Your task to perform on an android device: open app "LiveIn - Share Your Moment" (install if not already installed) Image 0: 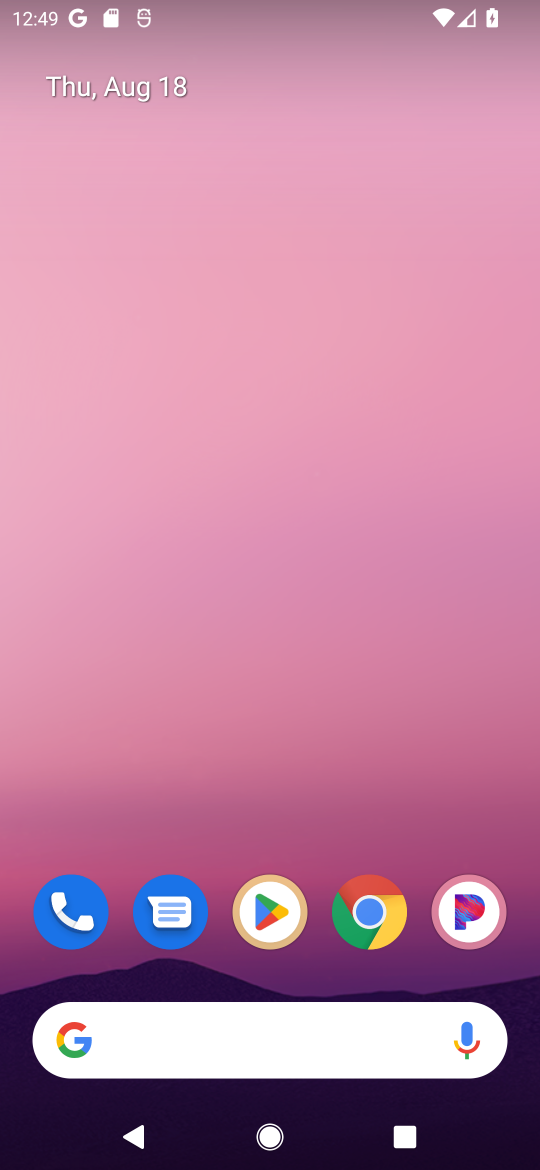
Step 0: click (249, 925)
Your task to perform on an android device: open app "LiveIn - Share Your Moment" (install if not already installed) Image 1: 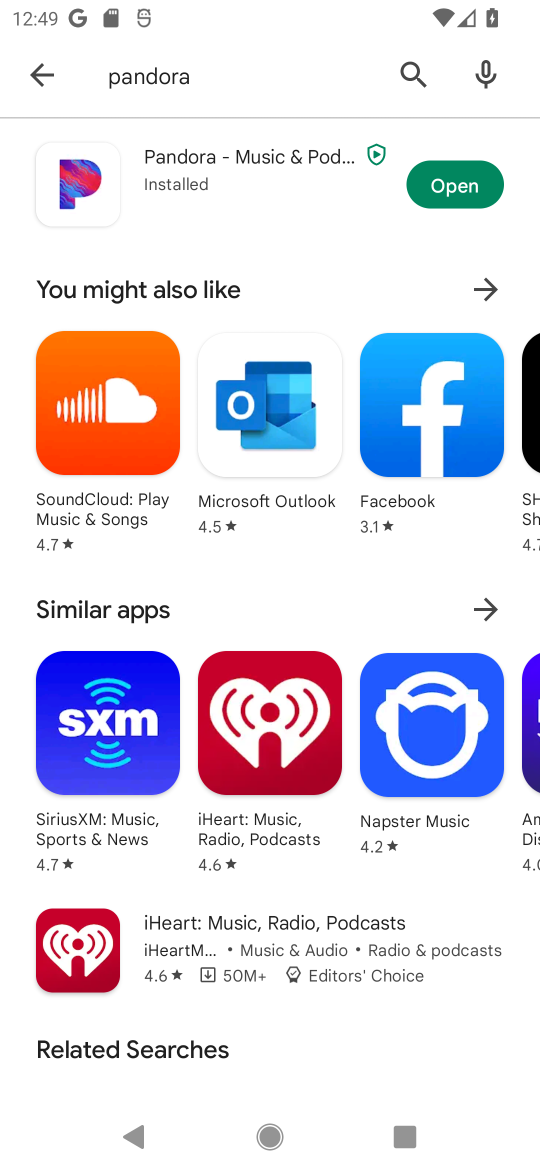
Step 1: click (408, 70)
Your task to perform on an android device: open app "LiveIn - Share Your Moment" (install if not already installed) Image 2: 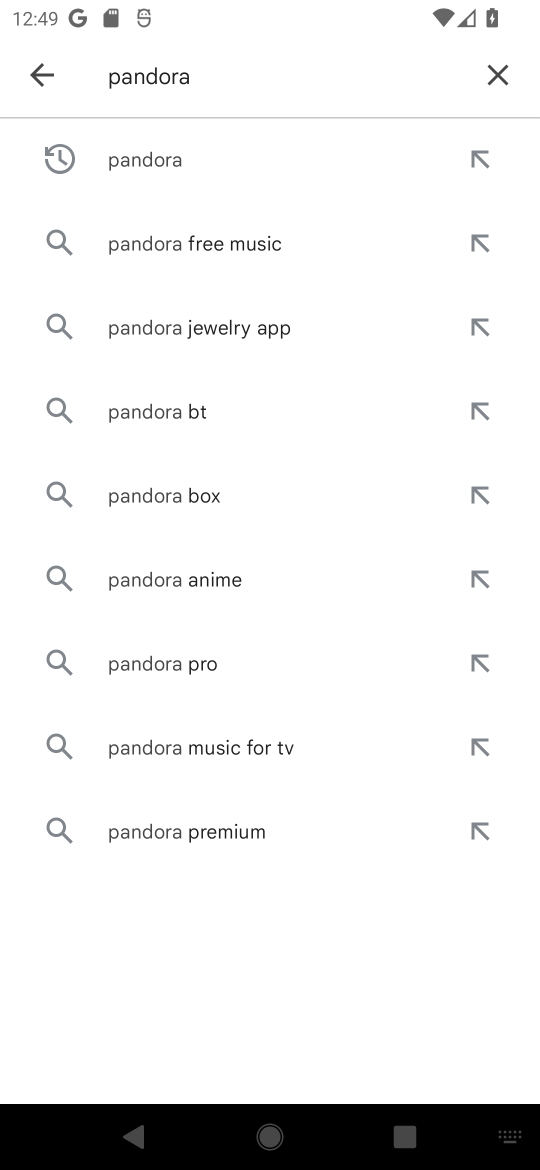
Step 2: click (498, 74)
Your task to perform on an android device: open app "LiveIn - Share Your Moment" (install if not already installed) Image 3: 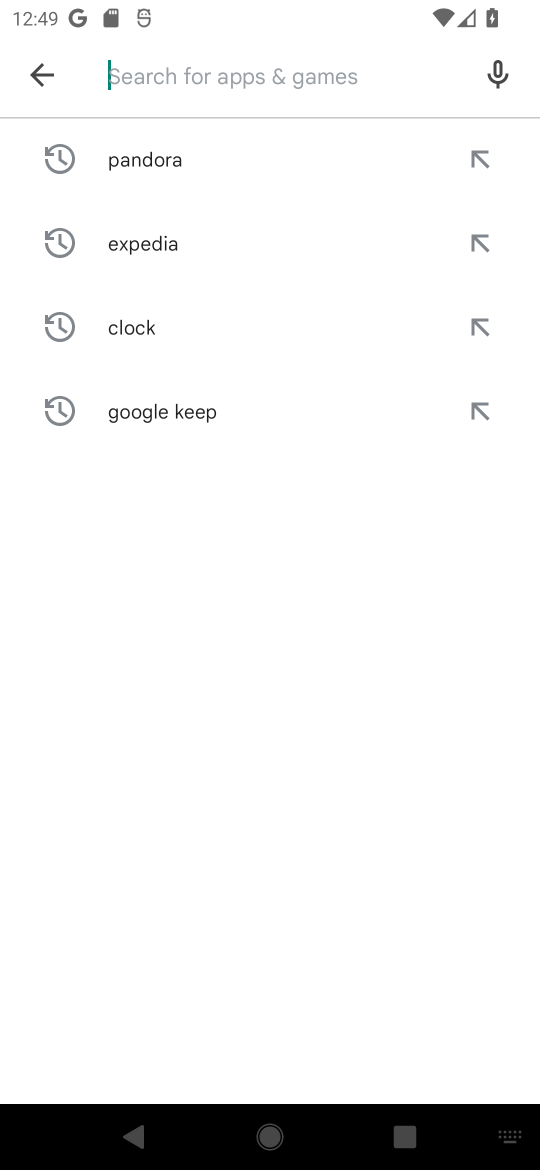
Step 3: click (151, 74)
Your task to perform on an android device: open app "LiveIn - Share Your Moment" (install if not already installed) Image 4: 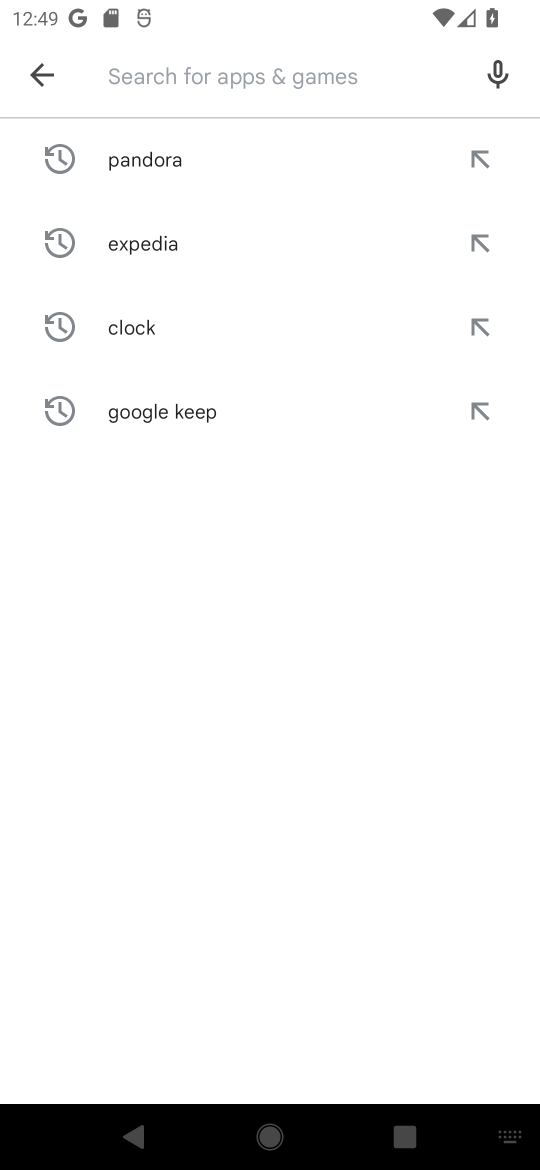
Step 4: type "LiveIn"
Your task to perform on an android device: open app "LiveIn - Share Your Moment" (install if not already installed) Image 5: 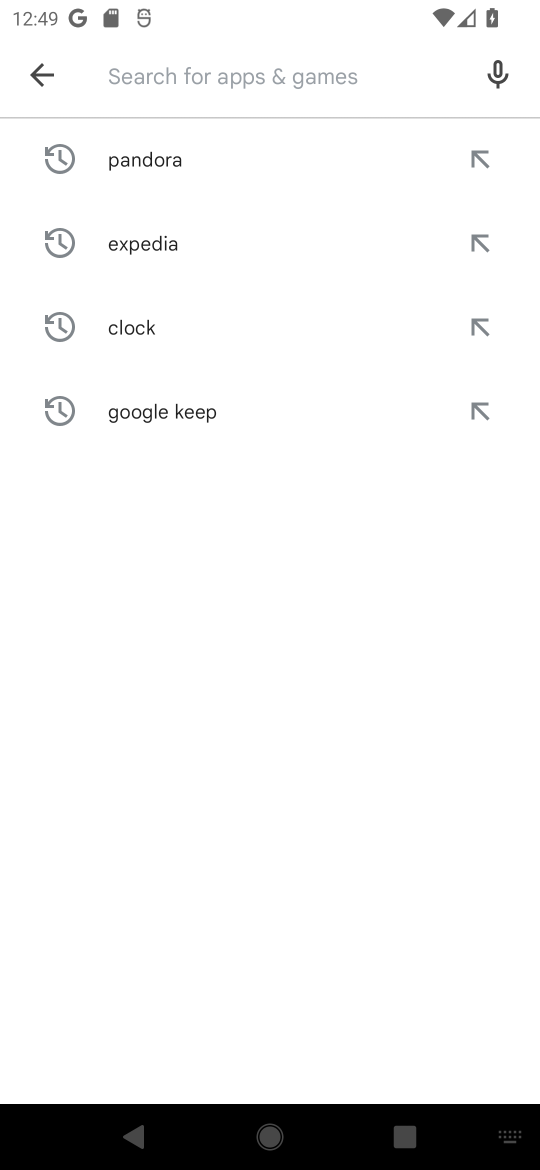
Step 5: click (369, 732)
Your task to perform on an android device: open app "LiveIn - Share Your Moment" (install if not already installed) Image 6: 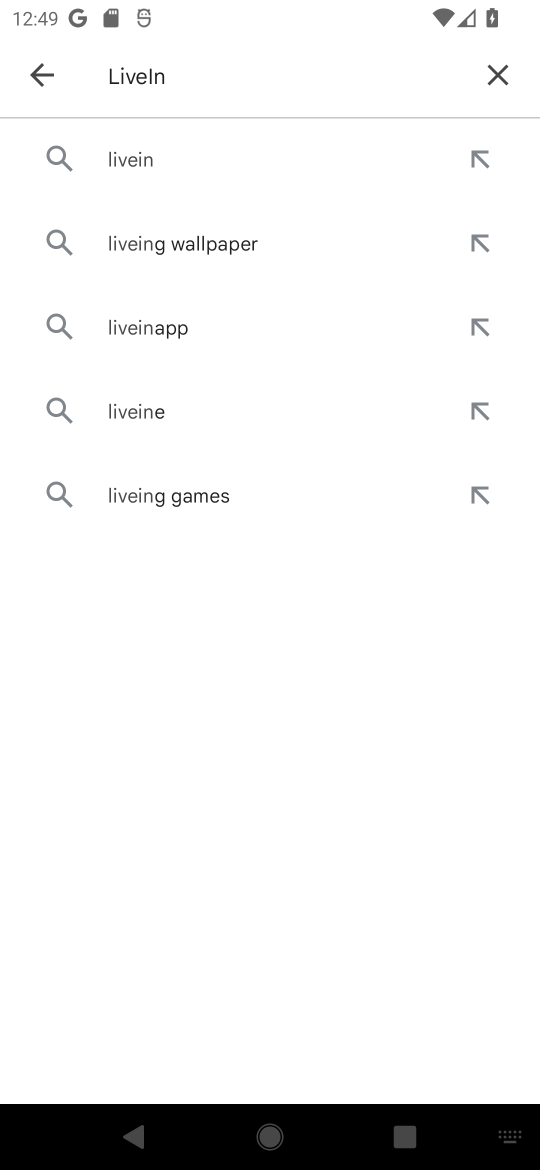
Step 6: click (159, 155)
Your task to perform on an android device: open app "LiveIn - Share Your Moment" (install if not already installed) Image 7: 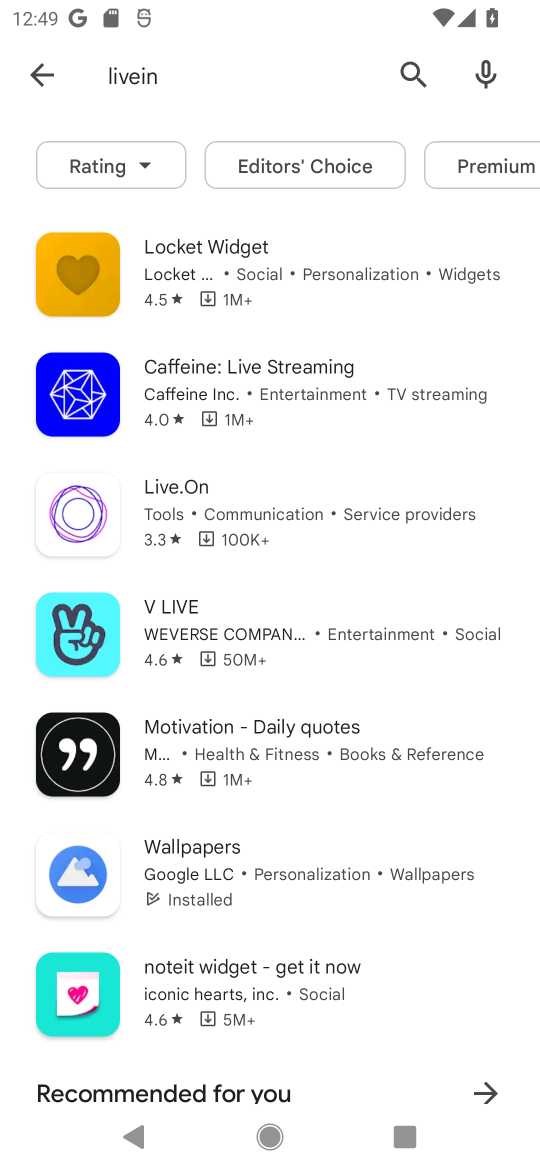
Step 7: task complete